Your task to perform on an android device: find photos in the google photos app Image 0: 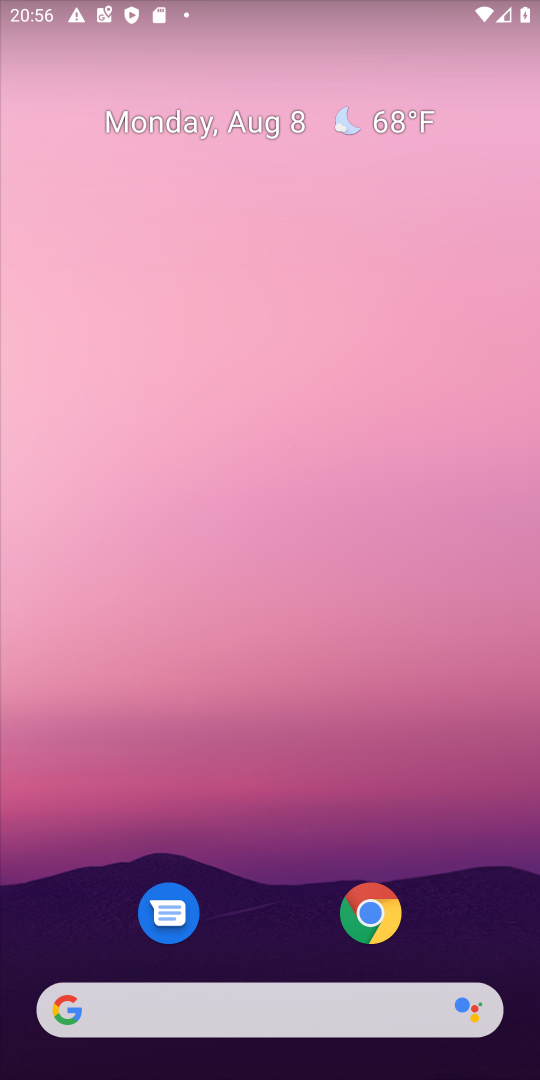
Step 0: drag from (264, 1010) to (260, 186)
Your task to perform on an android device: find photos in the google photos app Image 1: 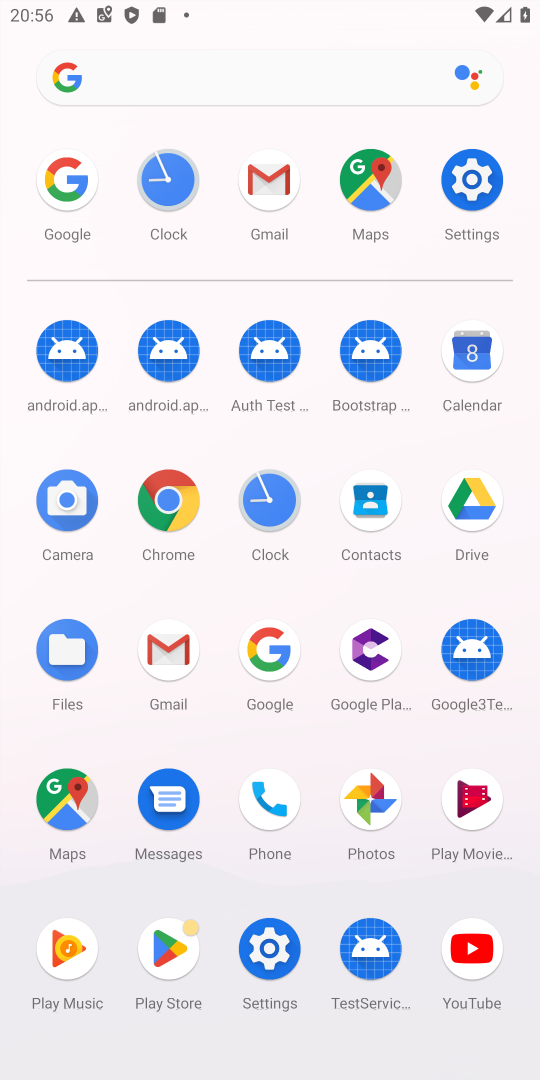
Step 1: click (369, 796)
Your task to perform on an android device: find photos in the google photos app Image 2: 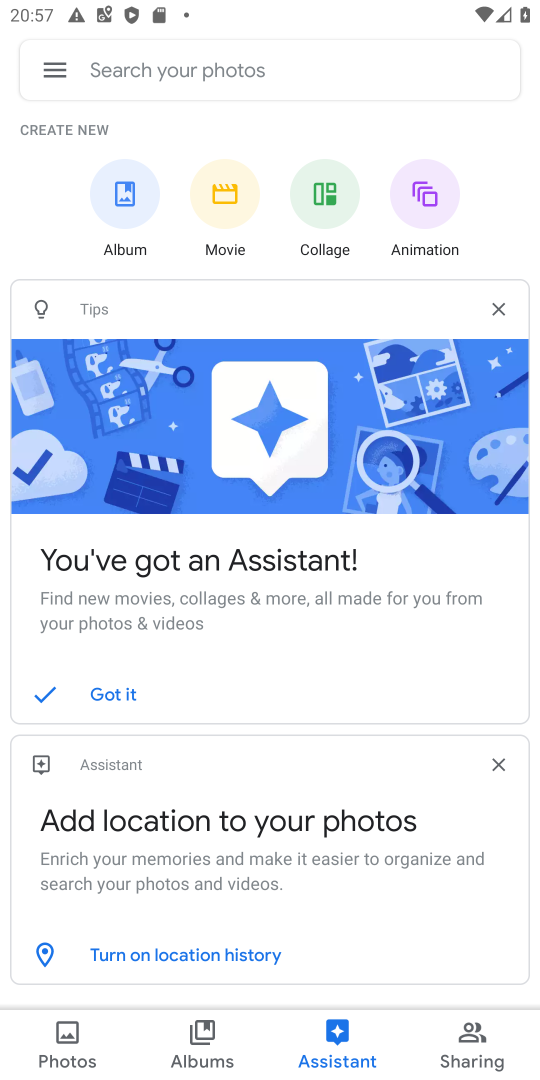
Step 2: click (75, 1031)
Your task to perform on an android device: find photos in the google photos app Image 3: 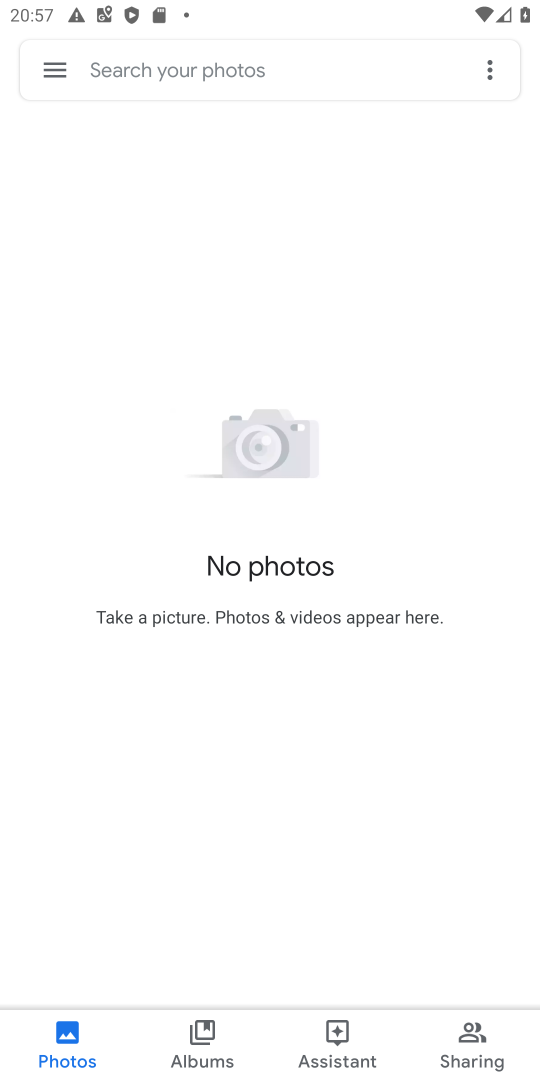
Step 3: click (244, 78)
Your task to perform on an android device: find photos in the google photos app Image 4: 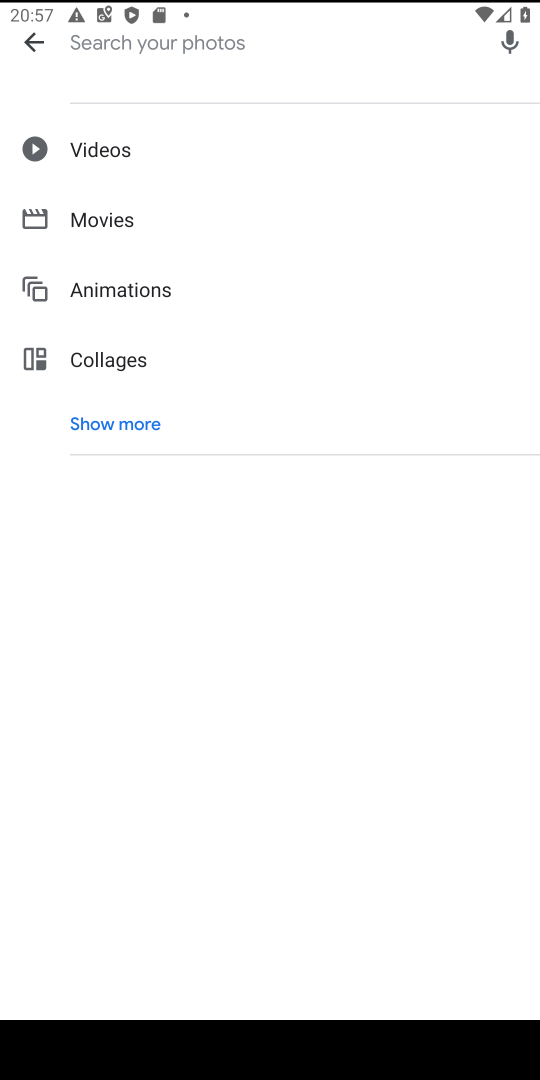
Step 4: click (127, 422)
Your task to perform on an android device: find photos in the google photos app Image 5: 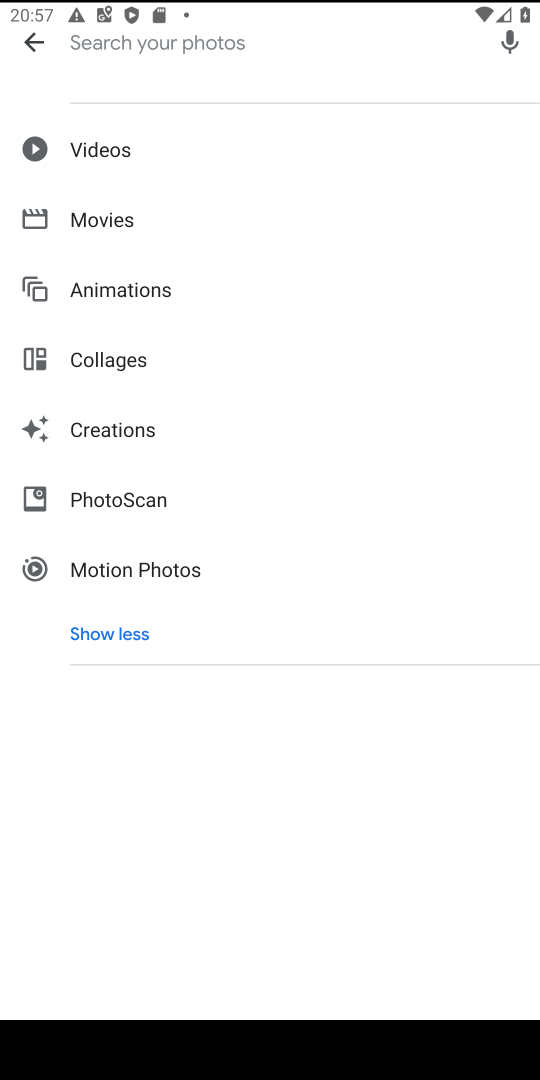
Step 5: click (143, 291)
Your task to perform on an android device: find photos in the google photos app Image 6: 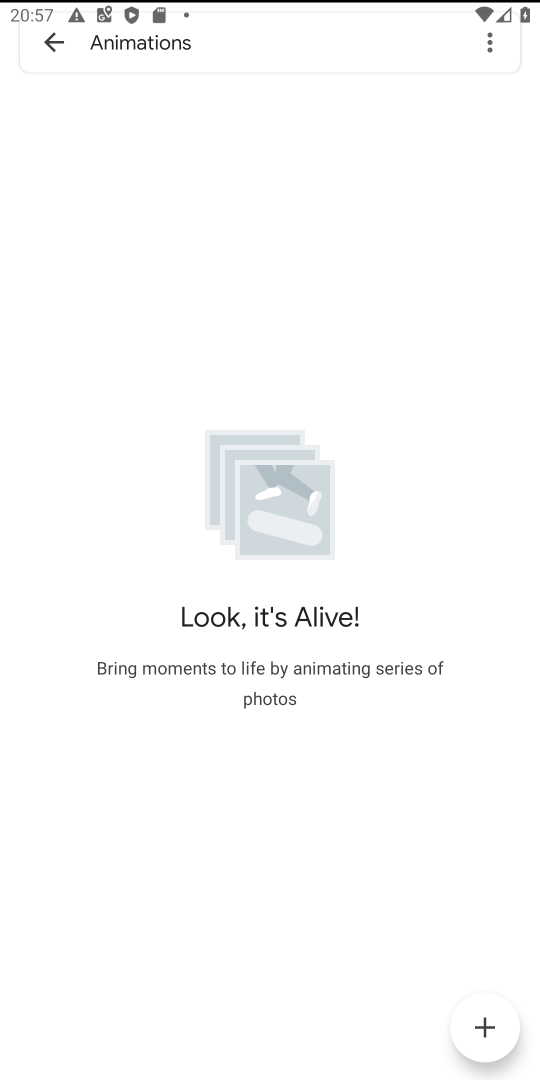
Step 6: task complete